Your task to perform on an android device: turn on notifications settings in the gmail app Image 0: 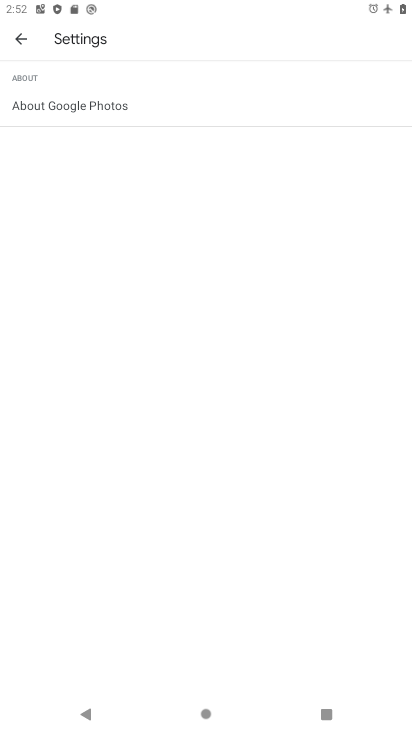
Step 0: press home button
Your task to perform on an android device: turn on notifications settings in the gmail app Image 1: 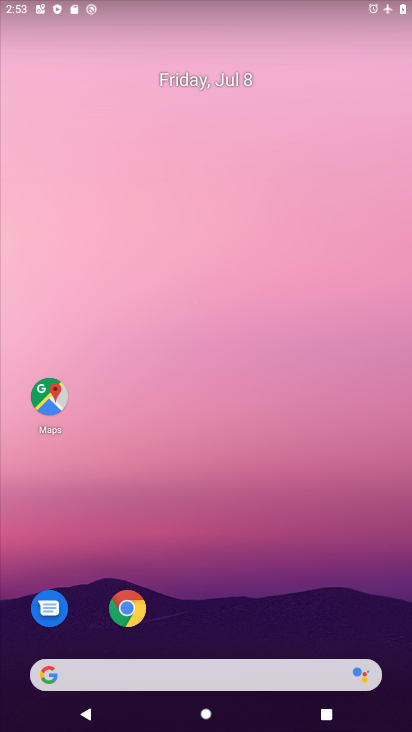
Step 1: drag from (301, 589) to (167, 1)
Your task to perform on an android device: turn on notifications settings in the gmail app Image 2: 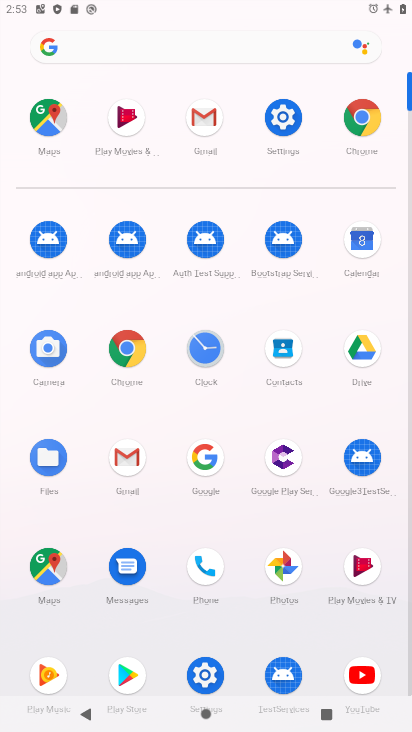
Step 2: click (133, 453)
Your task to perform on an android device: turn on notifications settings in the gmail app Image 3: 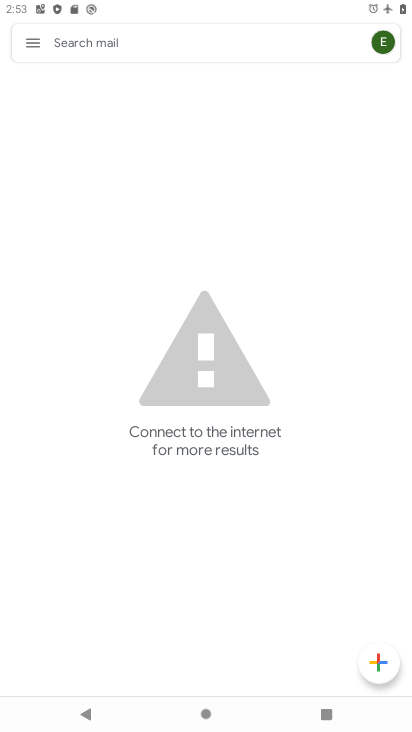
Step 3: click (31, 37)
Your task to perform on an android device: turn on notifications settings in the gmail app Image 4: 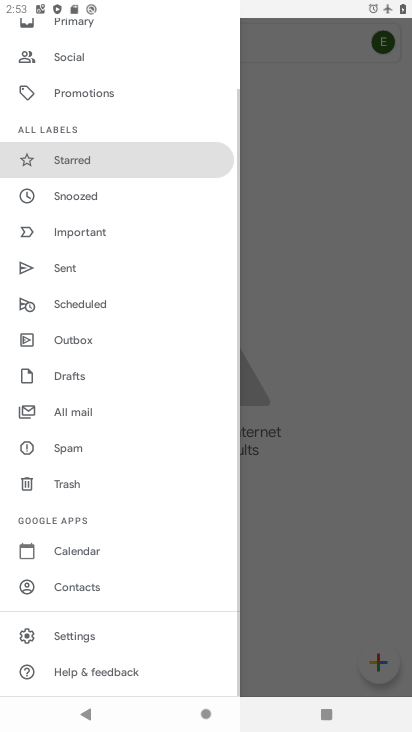
Step 4: click (119, 635)
Your task to perform on an android device: turn on notifications settings in the gmail app Image 5: 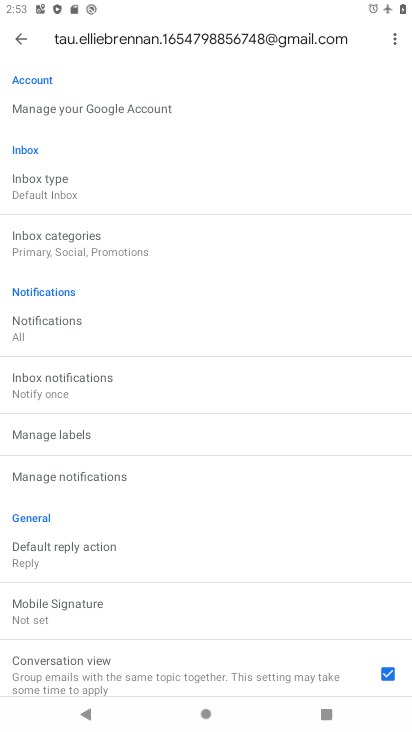
Step 5: click (93, 466)
Your task to perform on an android device: turn on notifications settings in the gmail app Image 6: 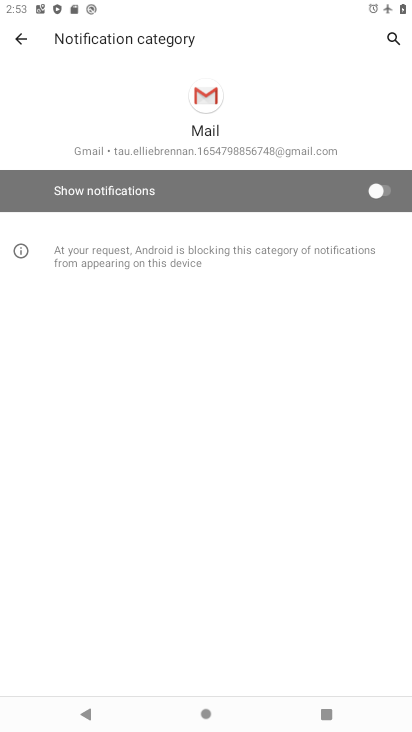
Step 6: click (379, 185)
Your task to perform on an android device: turn on notifications settings in the gmail app Image 7: 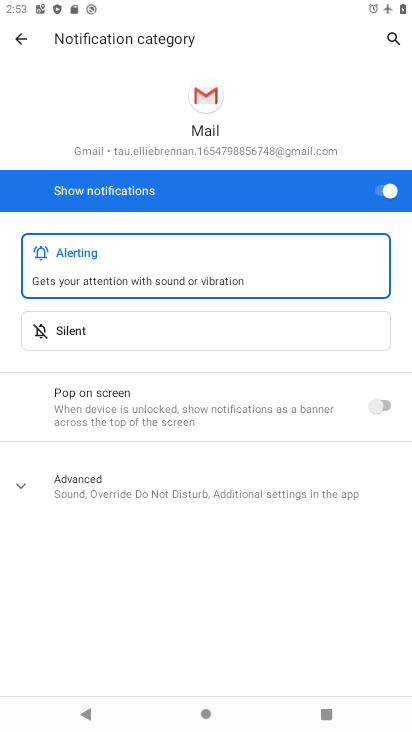
Step 7: task complete